Your task to perform on an android device: turn on location history Image 0: 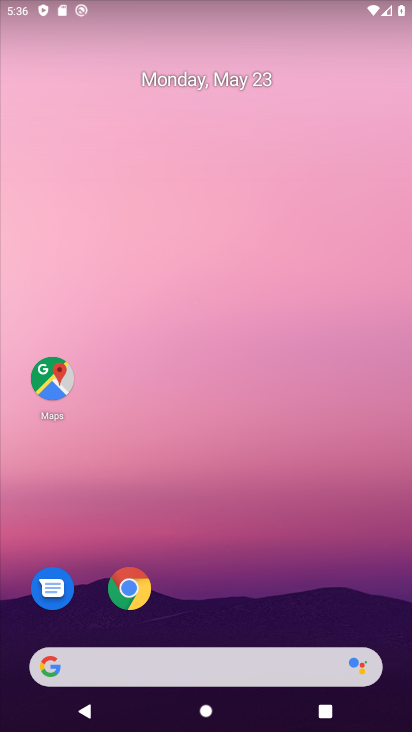
Step 0: drag from (303, 574) to (267, 1)
Your task to perform on an android device: turn on location history Image 1: 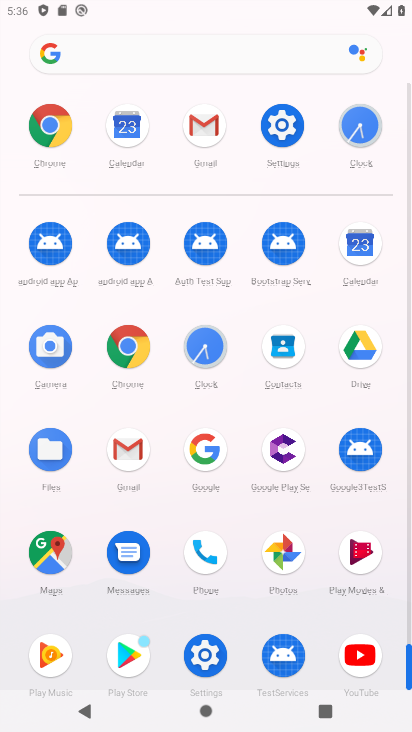
Step 1: drag from (4, 617) to (1, 149)
Your task to perform on an android device: turn on location history Image 2: 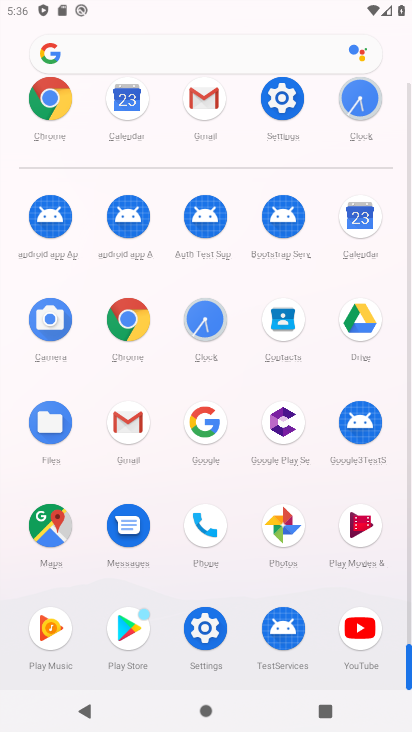
Step 2: click (210, 623)
Your task to perform on an android device: turn on location history Image 3: 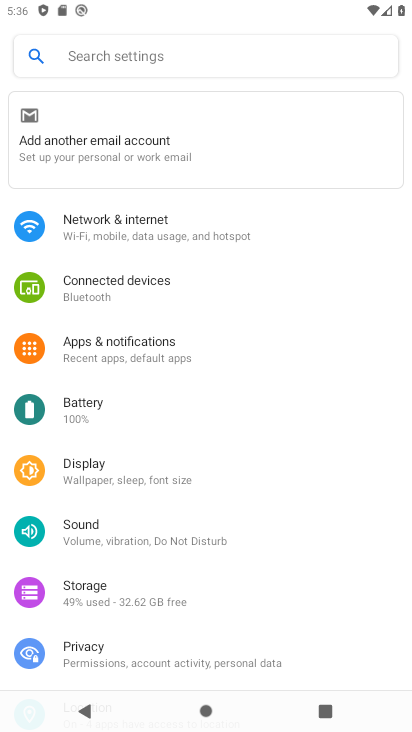
Step 3: drag from (164, 509) to (181, 148)
Your task to perform on an android device: turn on location history Image 4: 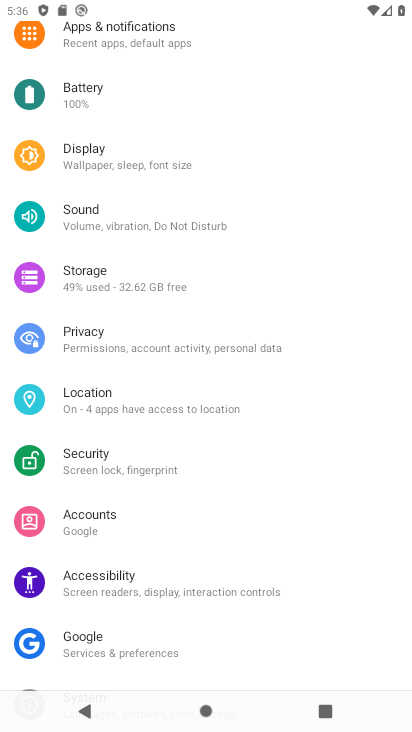
Step 4: drag from (271, 557) to (259, 66)
Your task to perform on an android device: turn on location history Image 5: 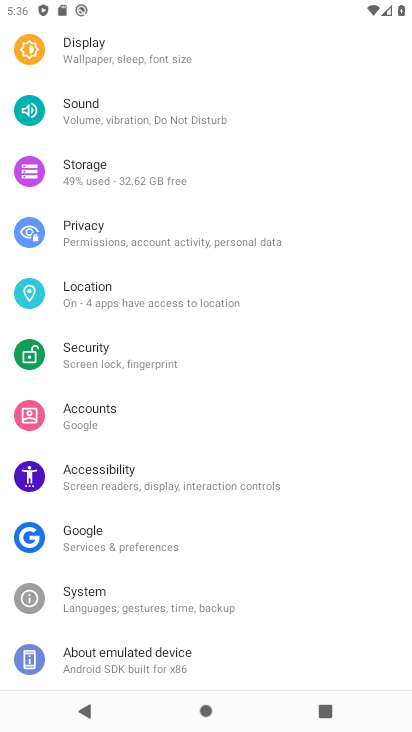
Step 5: drag from (196, 169) to (224, 580)
Your task to perform on an android device: turn on location history Image 6: 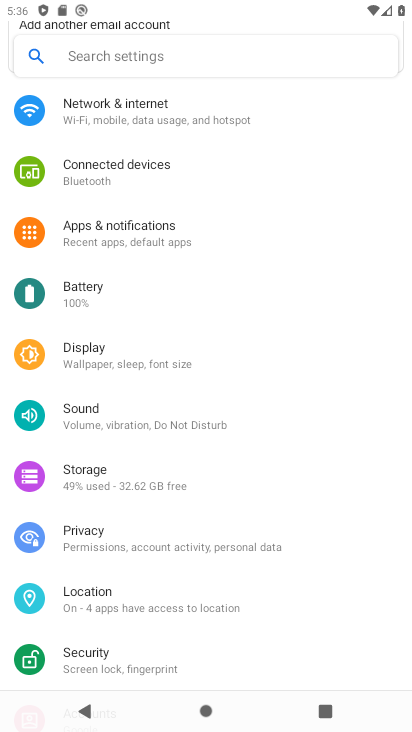
Step 6: drag from (261, 542) to (275, 87)
Your task to perform on an android device: turn on location history Image 7: 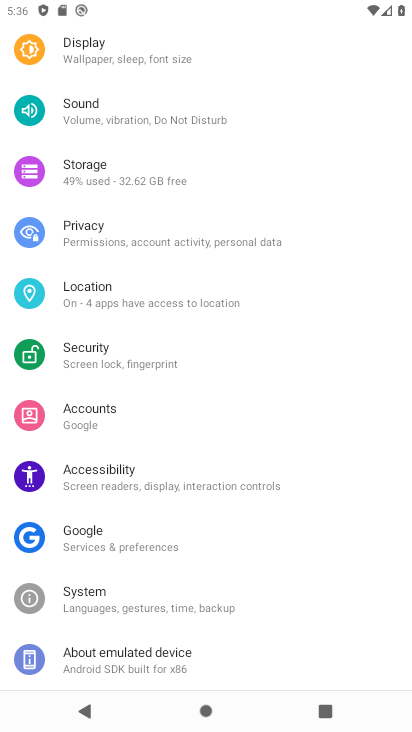
Step 7: click (139, 295)
Your task to perform on an android device: turn on location history Image 8: 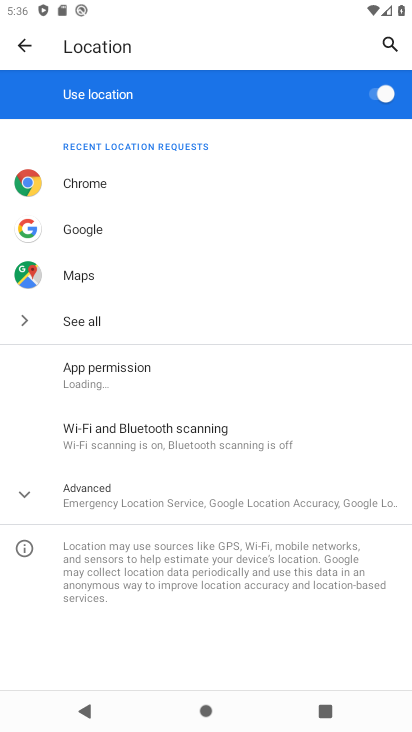
Step 8: click (32, 485)
Your task to perform on an android device: turn on location history Image 9: 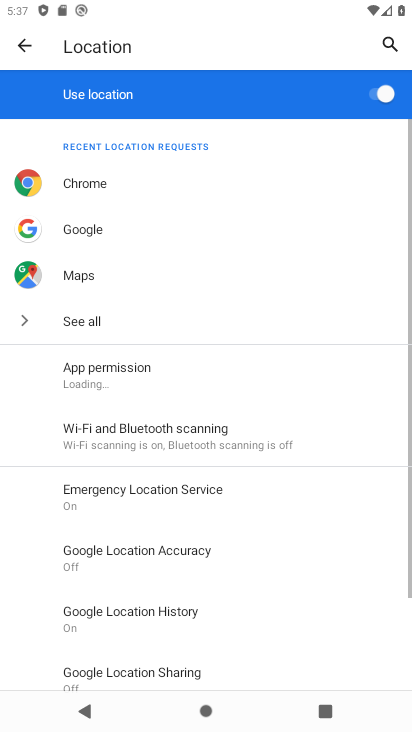
Step 9: drag from (295, 617) to (294, 235)
Your task to perform on an android device: turn on location history Image 10: 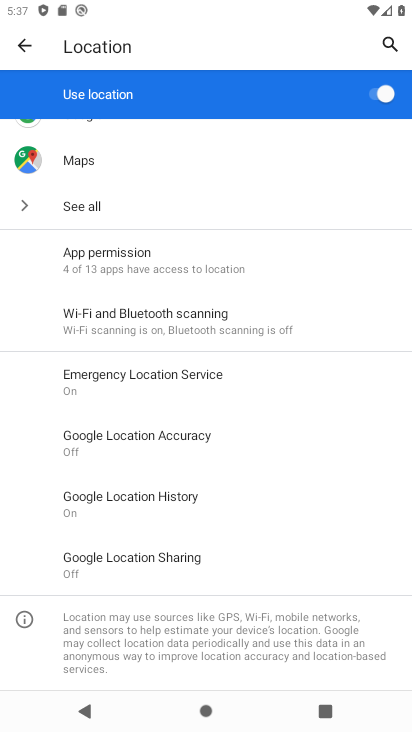
Step 10: click (166, 496)
Your task to perform on an android device: turn on location history Image 11: 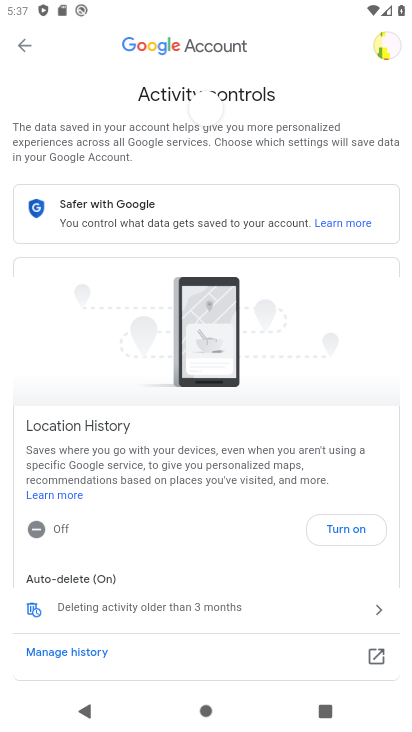
Step 11: task complete